Your task to perform on an android device: Open my contact list Image 0: 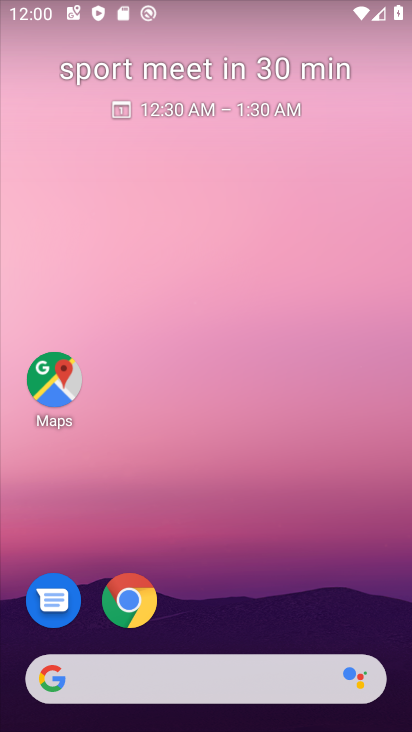
Step 0: drag from (188, 538) to (239, 29)
Your task to perform on an android device: Open my contact list Image 1: 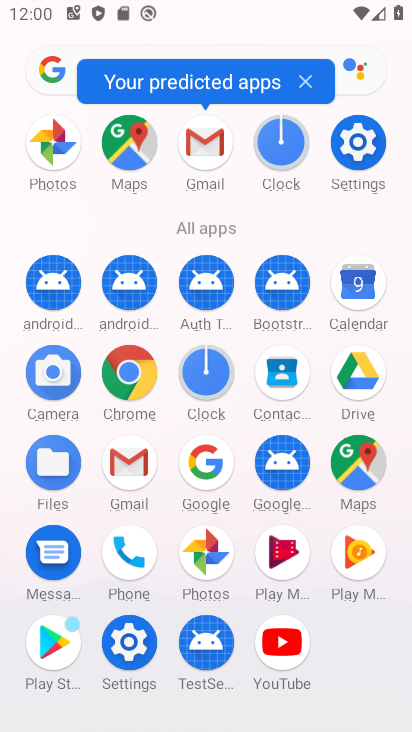
Step 1: click (285, 391)
Your task to perform on an android device: Open my contact list Image 2: 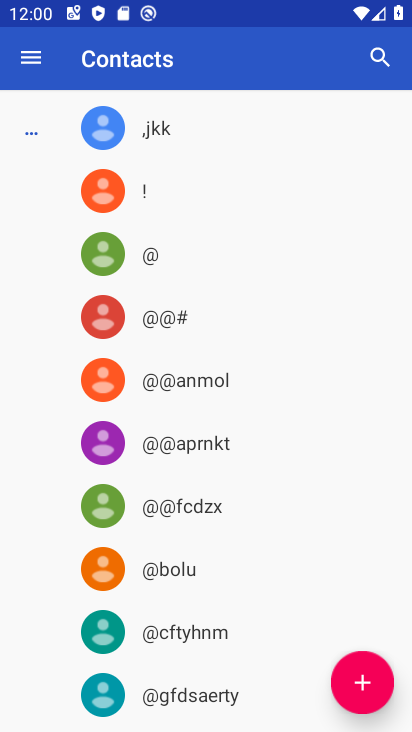
Step 2: task complete